Your task to perform on an android device: snooze an email in the gmail app Image 0: 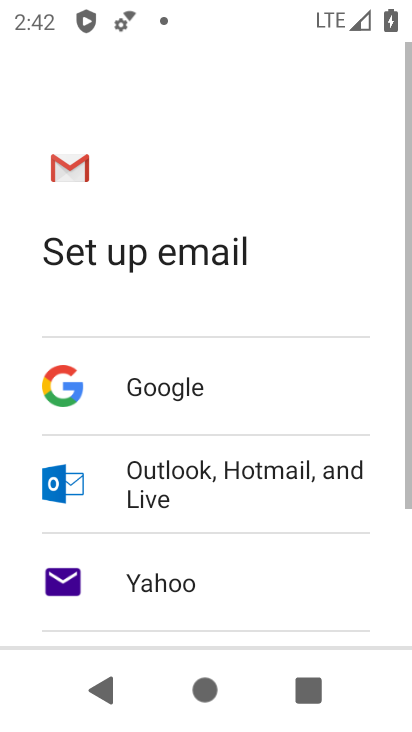
Step 0: press back button
Your task to perform on an android device: snooze an email in the gmail app Image 1: 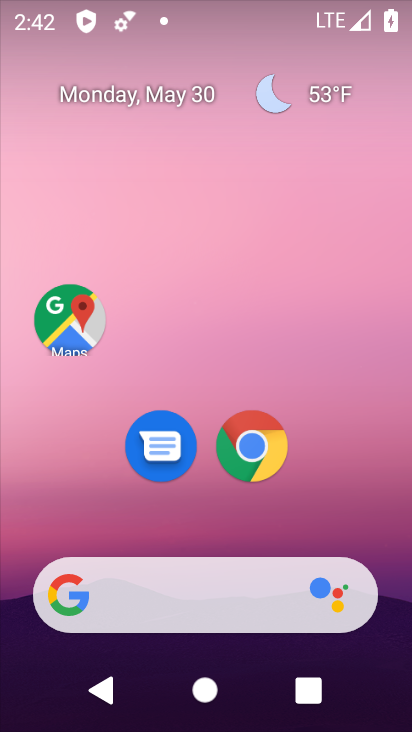
Step 1: drag from (334, 524) to (241, 24)
Your task to perform on an android device: snooze an email in the gmail app Image 2: 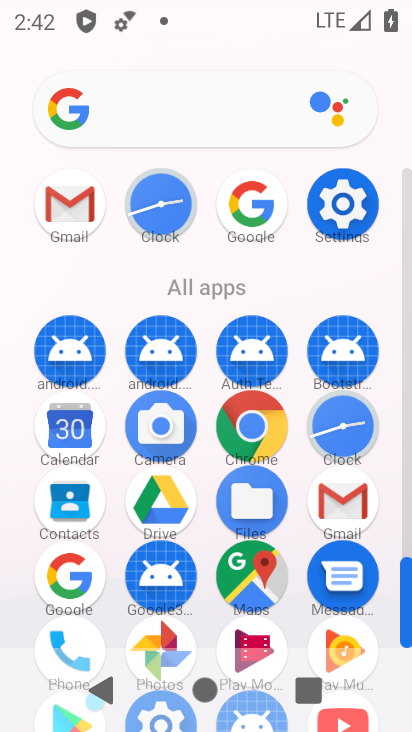
Step 2: click (71, 205)
Your task to perform on an android device: snooze an email in the gmail app Image 3: 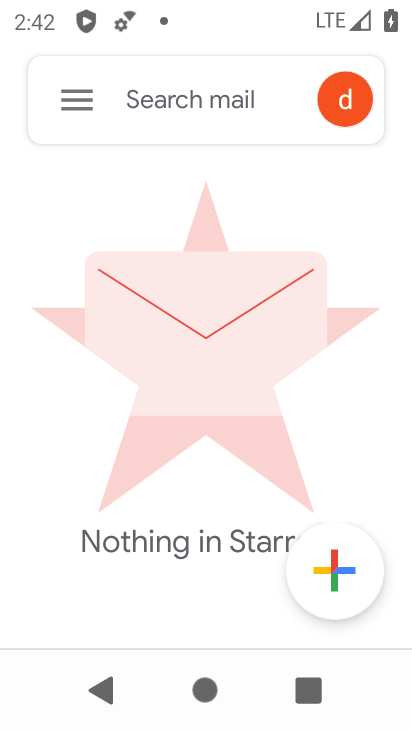
Step 3: click (90, 107)
Your task to perform on an android device: snooze an email in the gmail app Image 4: 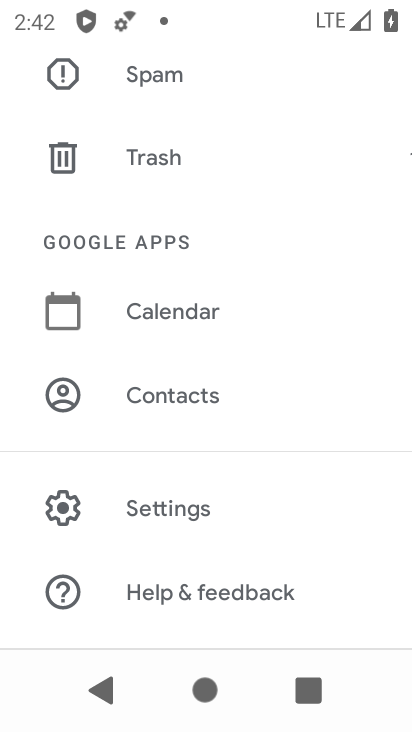
Step 4: drag from (196, 180) to (181, 350)
Your task to perform on an android device: snooze an email in the gmail app Image 5: 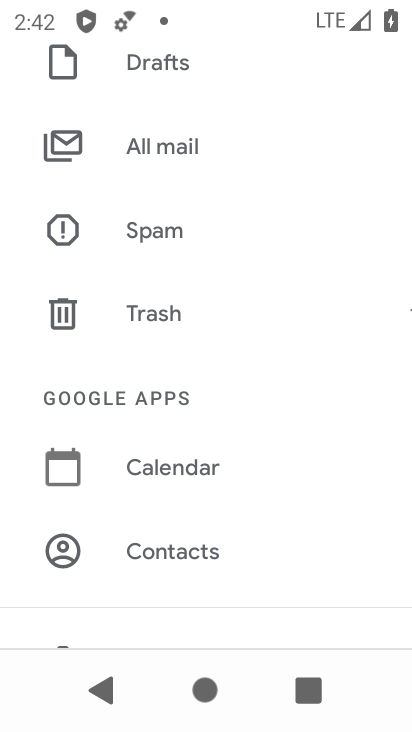
Step 5: drag from (222, 191) to (200, 367)
Your task to perform on an android device: snooze an email in the gmail app Image 6: 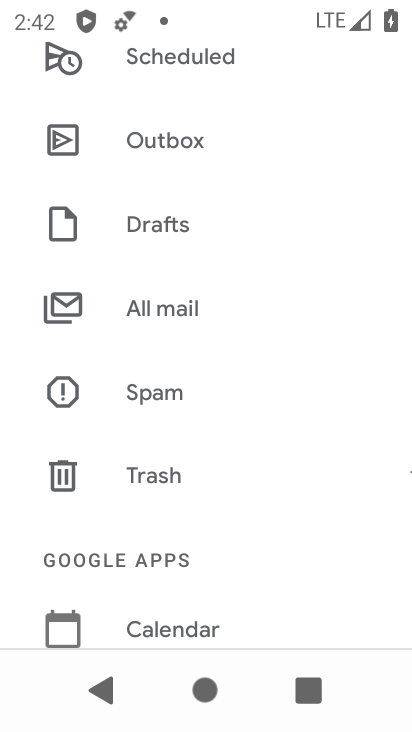
Step 6: drag from (220, 181) to (215, 338)
Your task to perform on an android device: snooze an email in the gmail app Image 7: 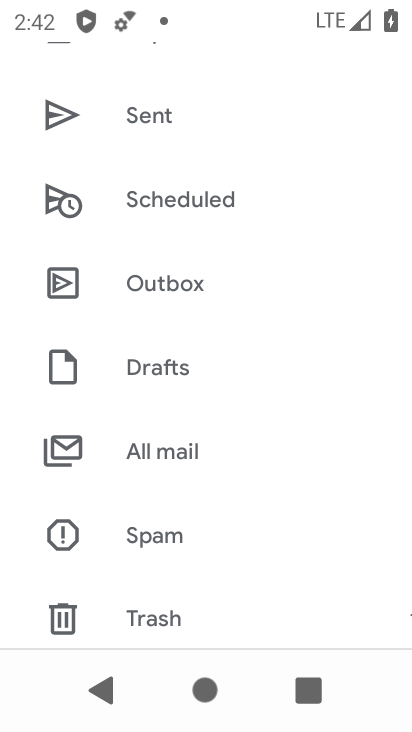
Step 7: drag from (221, 187) to (220, 324)
Your task to perform on an android device: snooze an email in the gmail app Image 8: 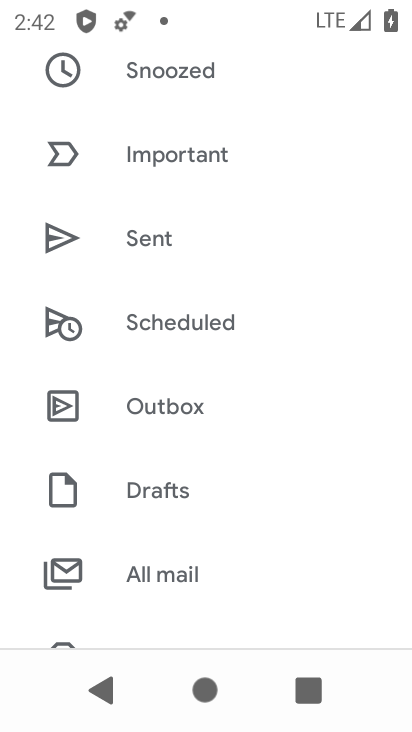
Step 8: drag from (219, 132) to (228, 247)
Your task to perform on an android device: snooze an email in the gmail app Image 9: 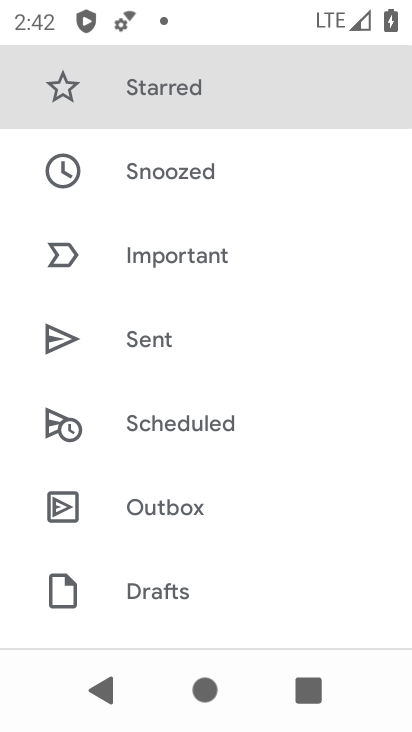
Step 9: click (190, 168)
Your task to perform on an android device: snooze an email in the gmail app Image 10: 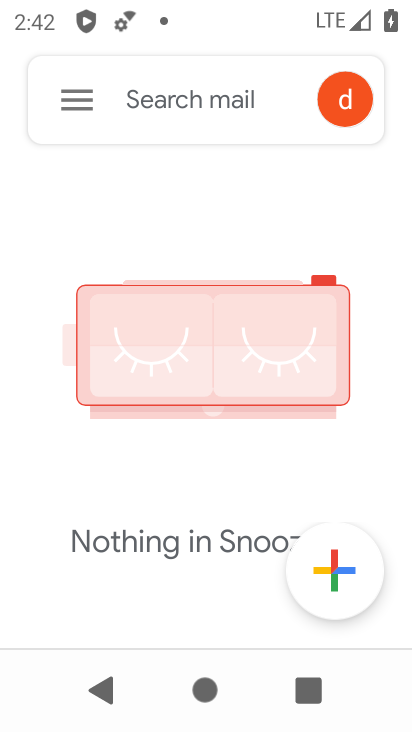
Step 10: click (79, 97)
Your task to perform on an android device: snooze an email in the gmail app Image 11: 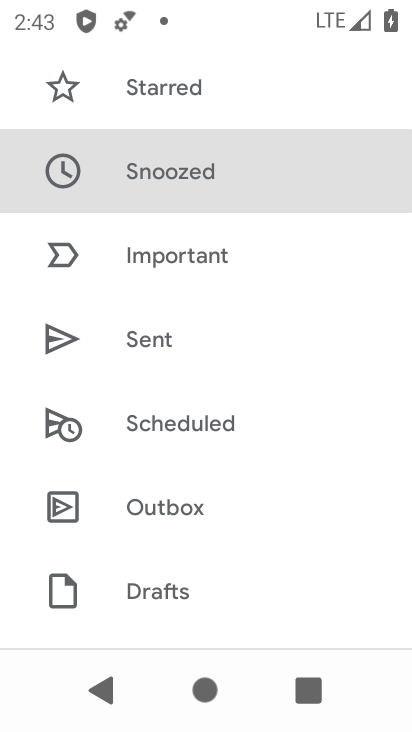
Step 11: drag from (139, 243) to (117, 370)
Your task to perform on an android device: snooze an email in the gmail app Image 12: 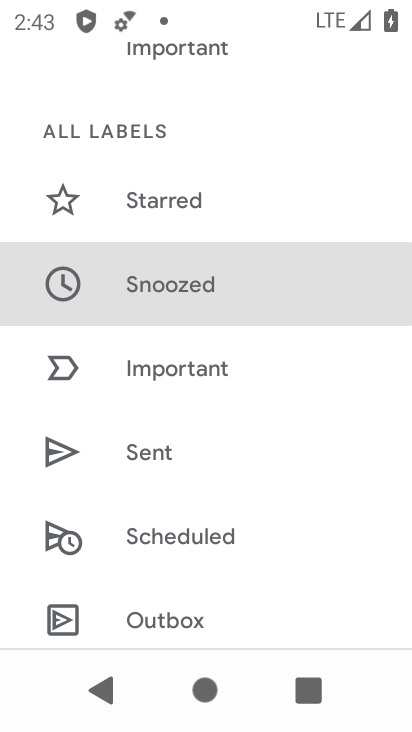
Step 12: drag from (150, 181) to (112, 357)
Your task to perform on an android device: snooze an email in the gmail app Image 13: 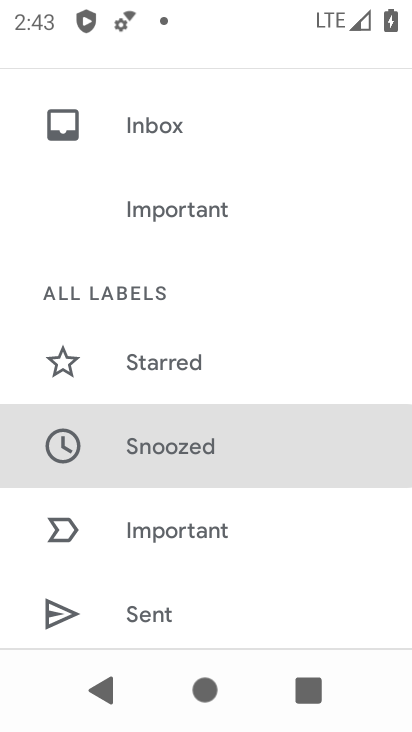
Step 13: click (145, 124)
Your task to perform on an android device: snooze an email in the gmail app Image 14: 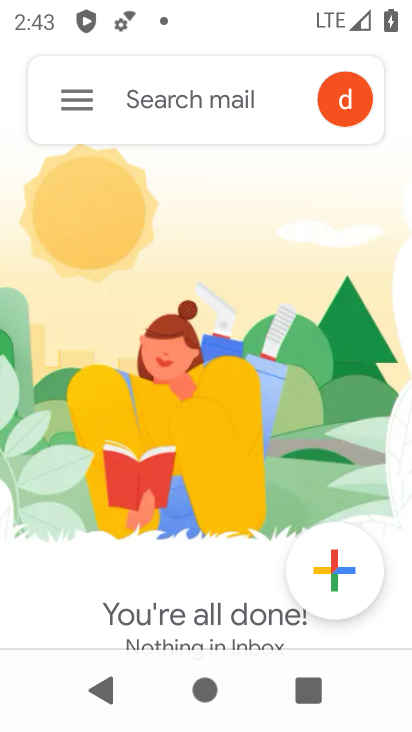
Step 14: click (85, 99)
Your task to perform on an android device: snooze an email in the gmail app Image 15: 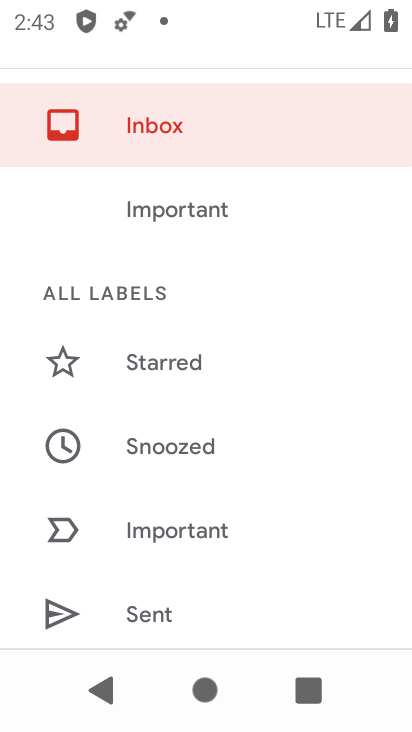
Step 15: click (159, 444)
Your task to perform on an android device: snooze an email in the gmail app Image 16: 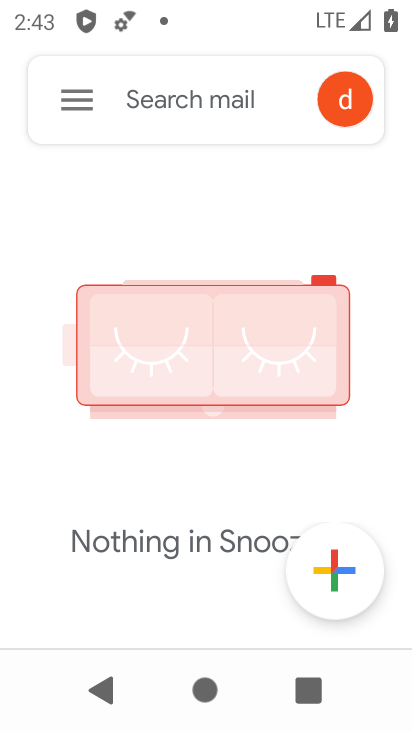
Step 16: task complete